Your task to perform on an android device: clear history in the chrome app Image 0: 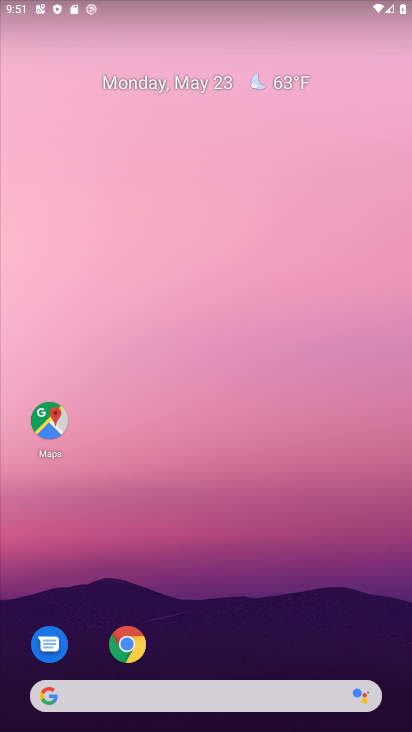
Step 0: press home button
Your task to perform on an android device: clear history in the chrome app Image 1: 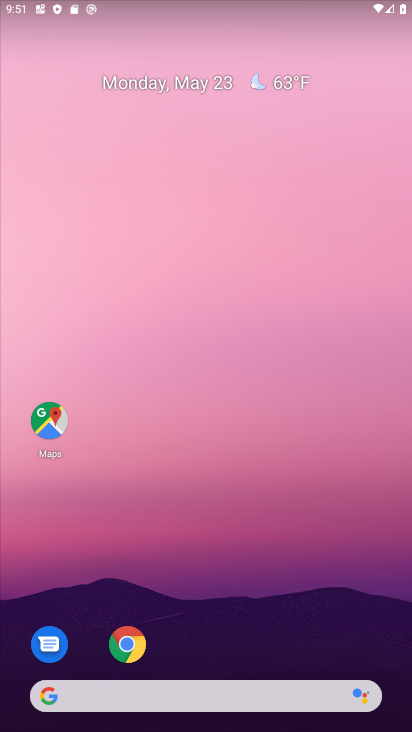
Step 1: click (128, 641)
Your task to perform on an android device: clear history in the chrome app Image 2: 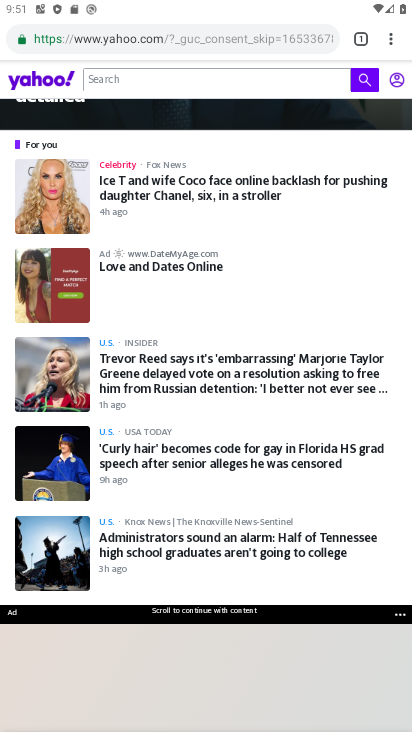
Step 2: click (390, 34)
Your task to perform on an android device: clear history in the chrome app Image 3: 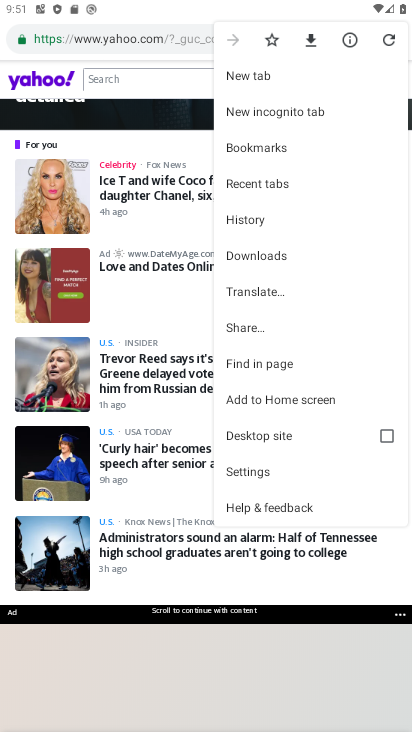
Step 3: click (263, 214)
Your task to perform on an android device: clear history in the chrome app Image 4: 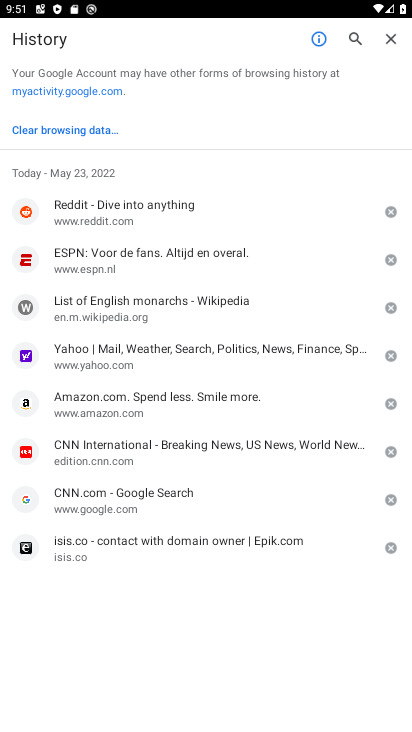
Step 4: click (64, 129)
Your task to perform on an android device: clear history in the chrome app Image 5: 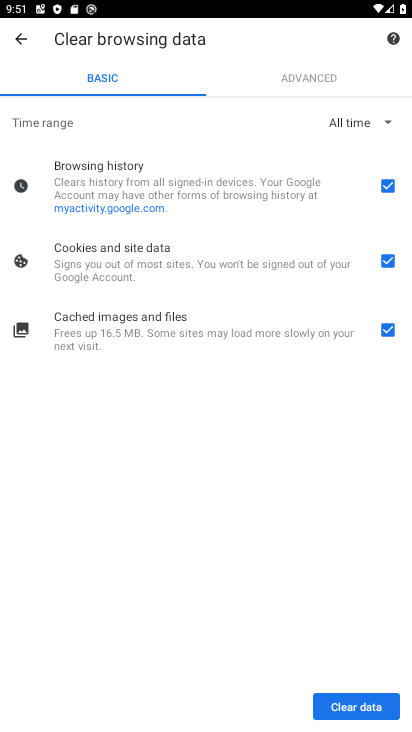
Step 5: click (350, 702)
Your task to perform on an android device: clear history in the chrome app Image 6: 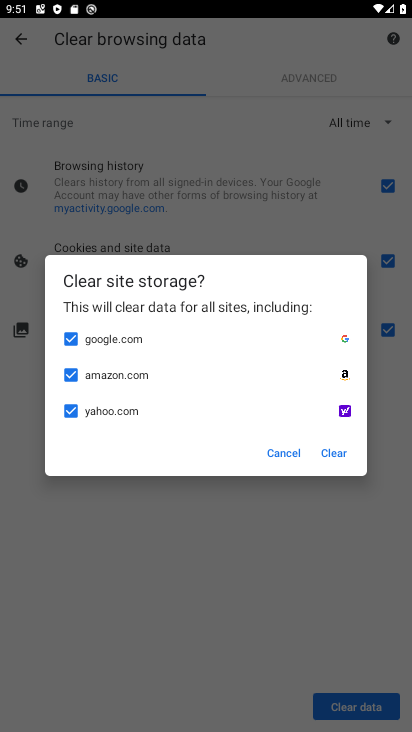
Step 6: click (336, 453)
Your task to perform on an android device: clear history in the chrome app Image 7: 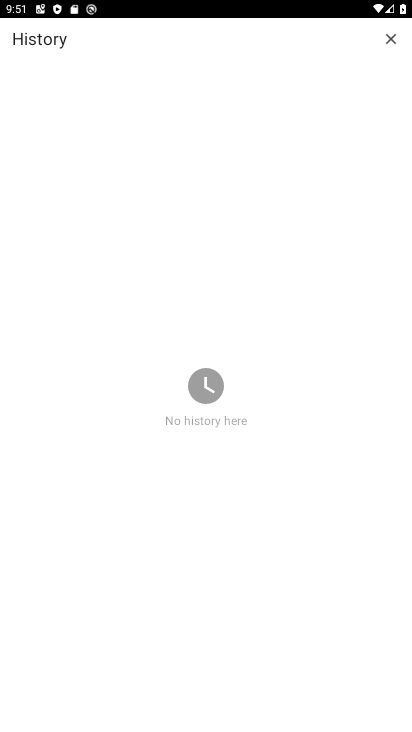
Step 7: task complete